Your task to perform on an android device: turn off location history Image 0: 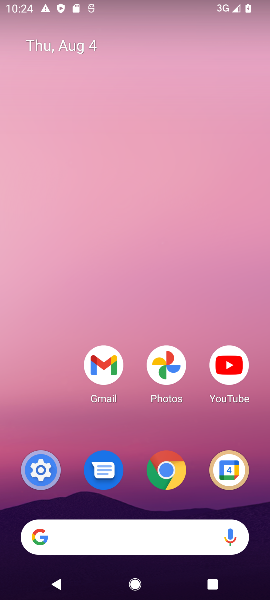
Step 0: click (45, 470)
Your task to perform on an android device: turn off location history Image 1: 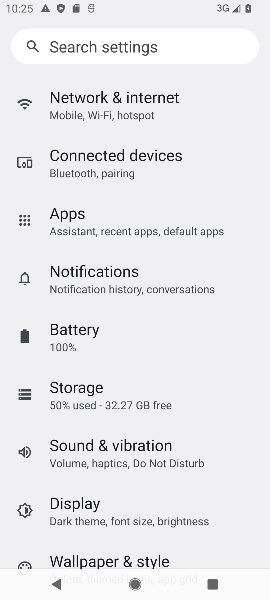
Step 1: drag from (147, 428) to (113, 117)
Your task to perform on an android device: turn off location history Image 2: 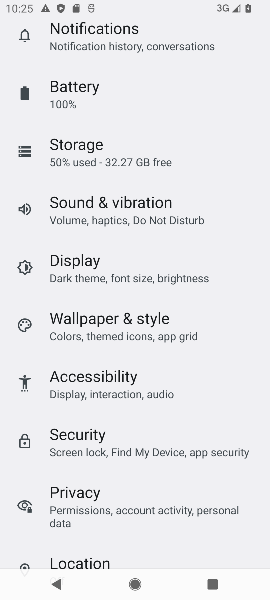
Step 2: click (80, 556)
Your task to perform on an android device: turn off location history Image 3: 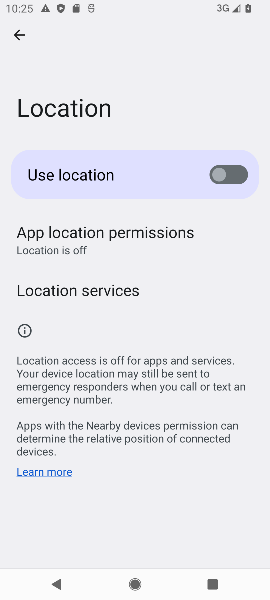
Step 3: task complete